Your task to perform on an android device: Open privacy settings Image 0: 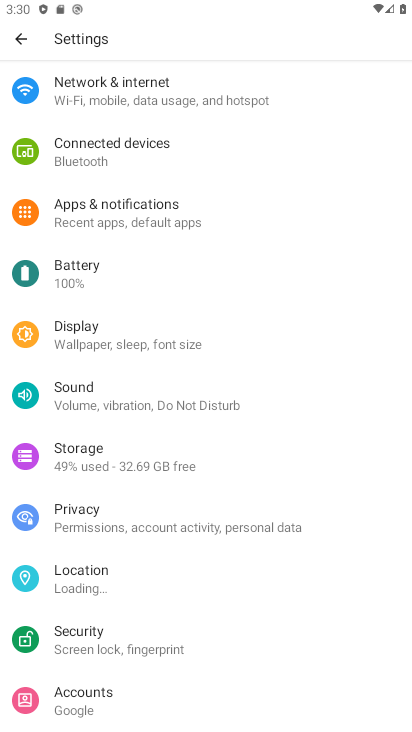
Step 0: press home button
Your task to perform on an android device: Open privacy settings Image 1: 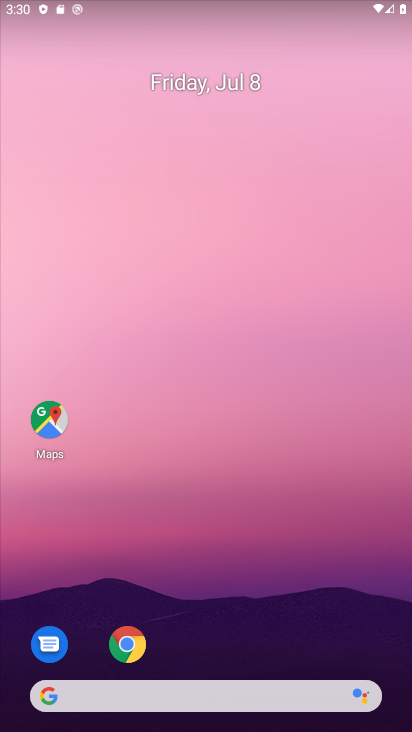
Step 1: drag from (233, 605) to (226, 5)
Your task to perform on an android device: Open privacy settings Image 2: 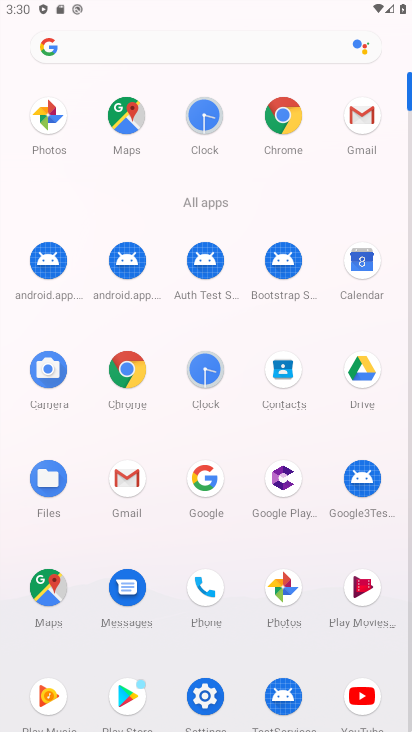
Step 2: click (206, 711)
Your task to perform on an android device: Open privacy settings Image 3: 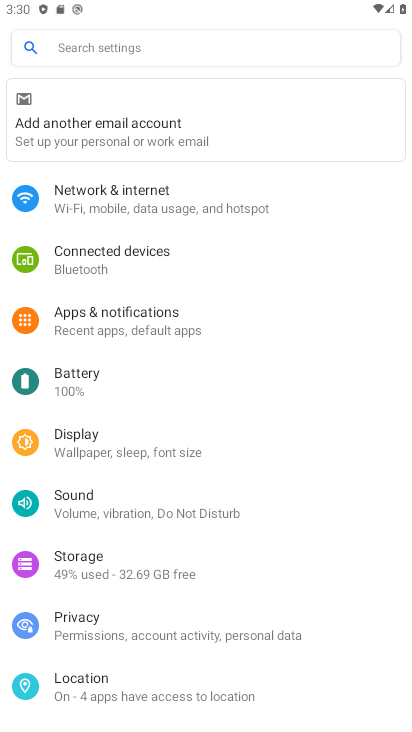
Step 3: click (71, 638)
Your task to perform on an android device: Open privacy settings Image 4: 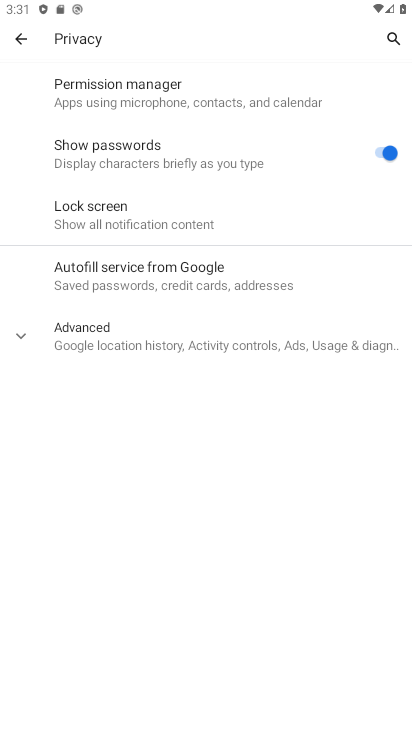
Step 4: task complete